Your task to perform on an android device: open wifi settings Image 0: 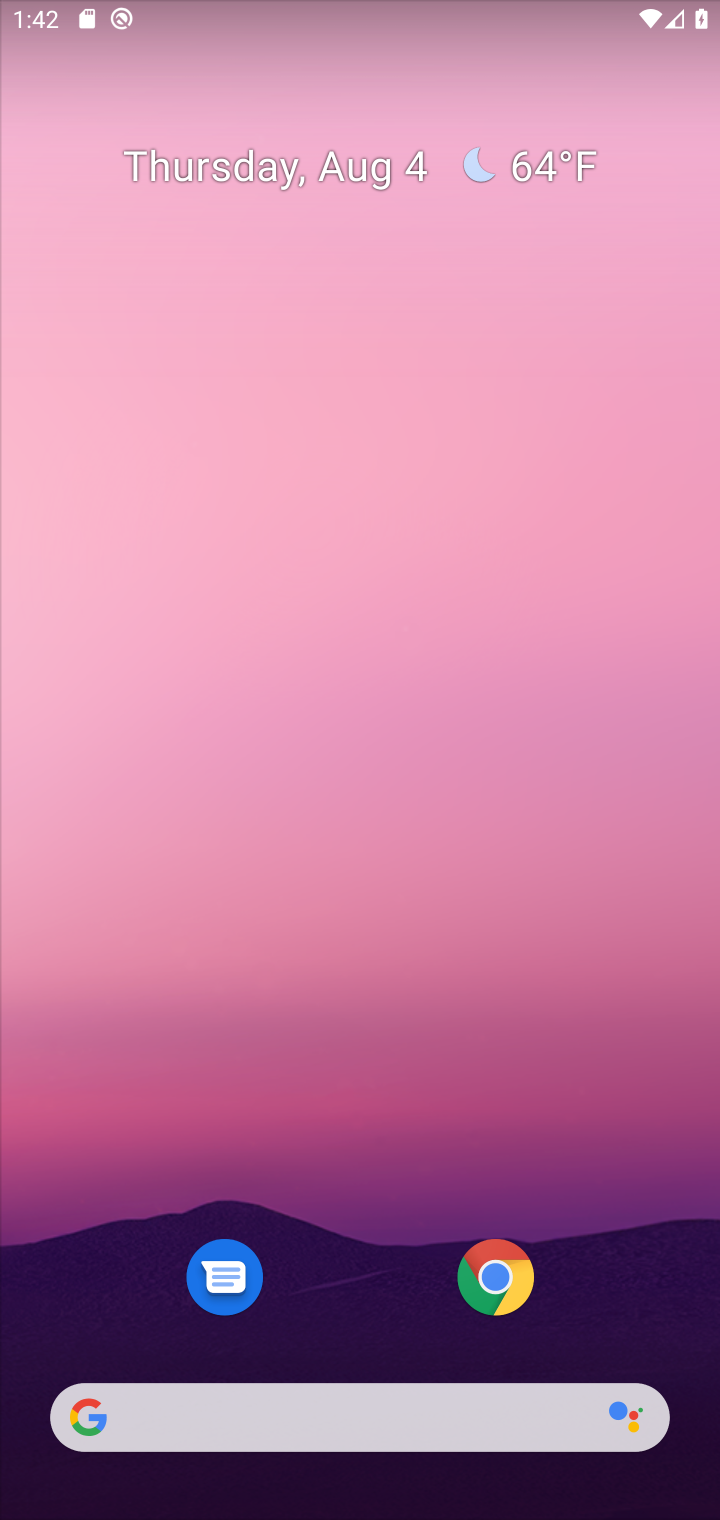
Step 0: drag from (279, 855) to (235, 408)
Your task to perform on an android device: open wifi settings Image 1: 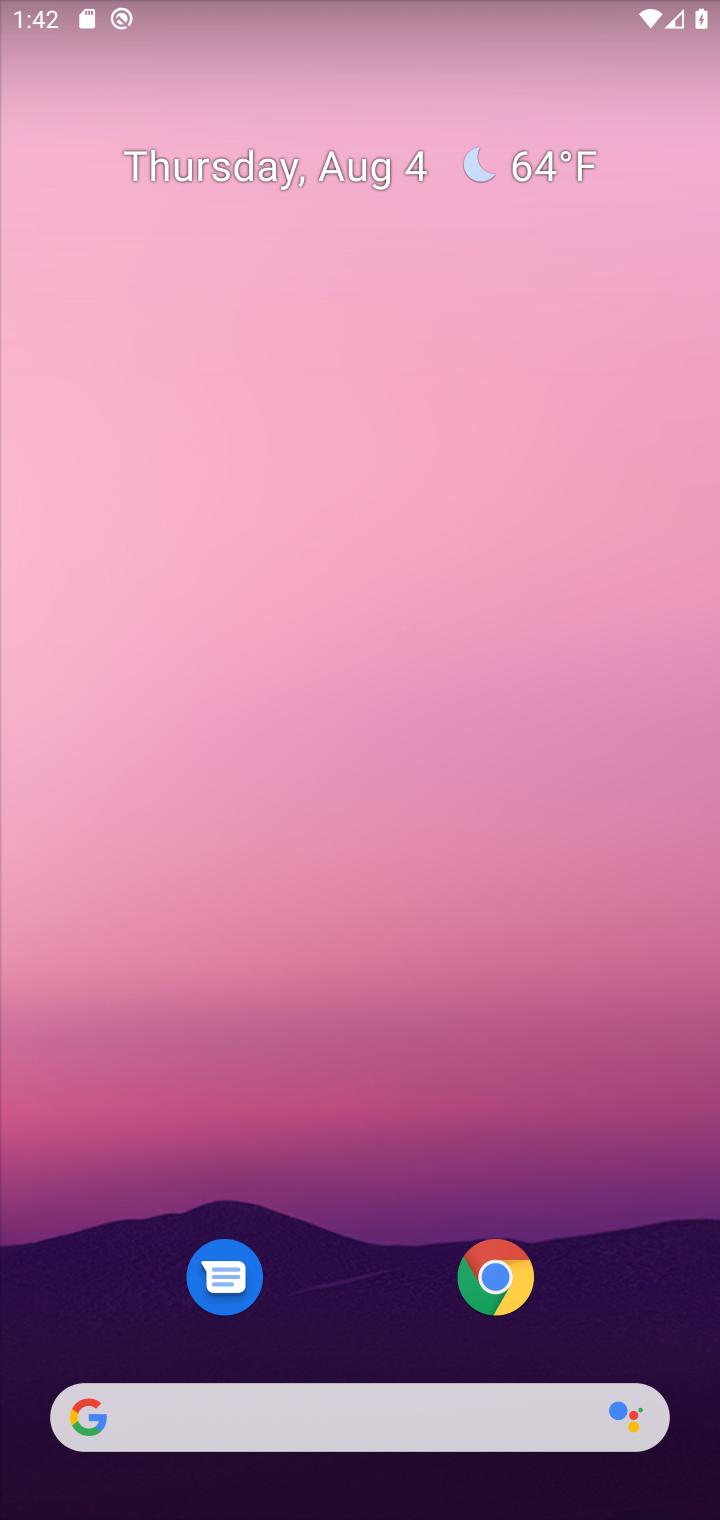
Step 1: drag from (305, 1173) to (376, 321)
Your task to perform on an android device: open wifi settings Image 2: 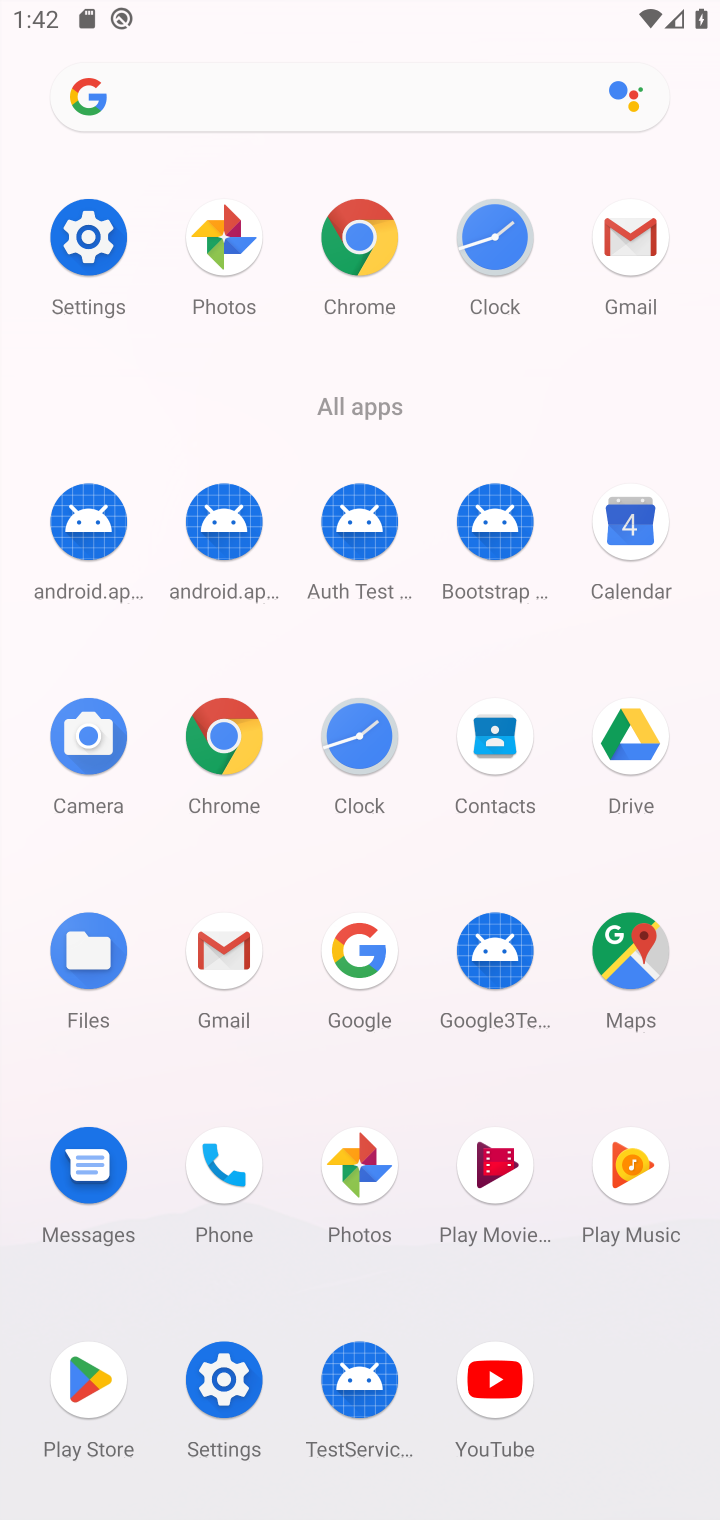
Step 2: click (56, 217)
Your task to perform on an android device: open wifi settings Image 3: 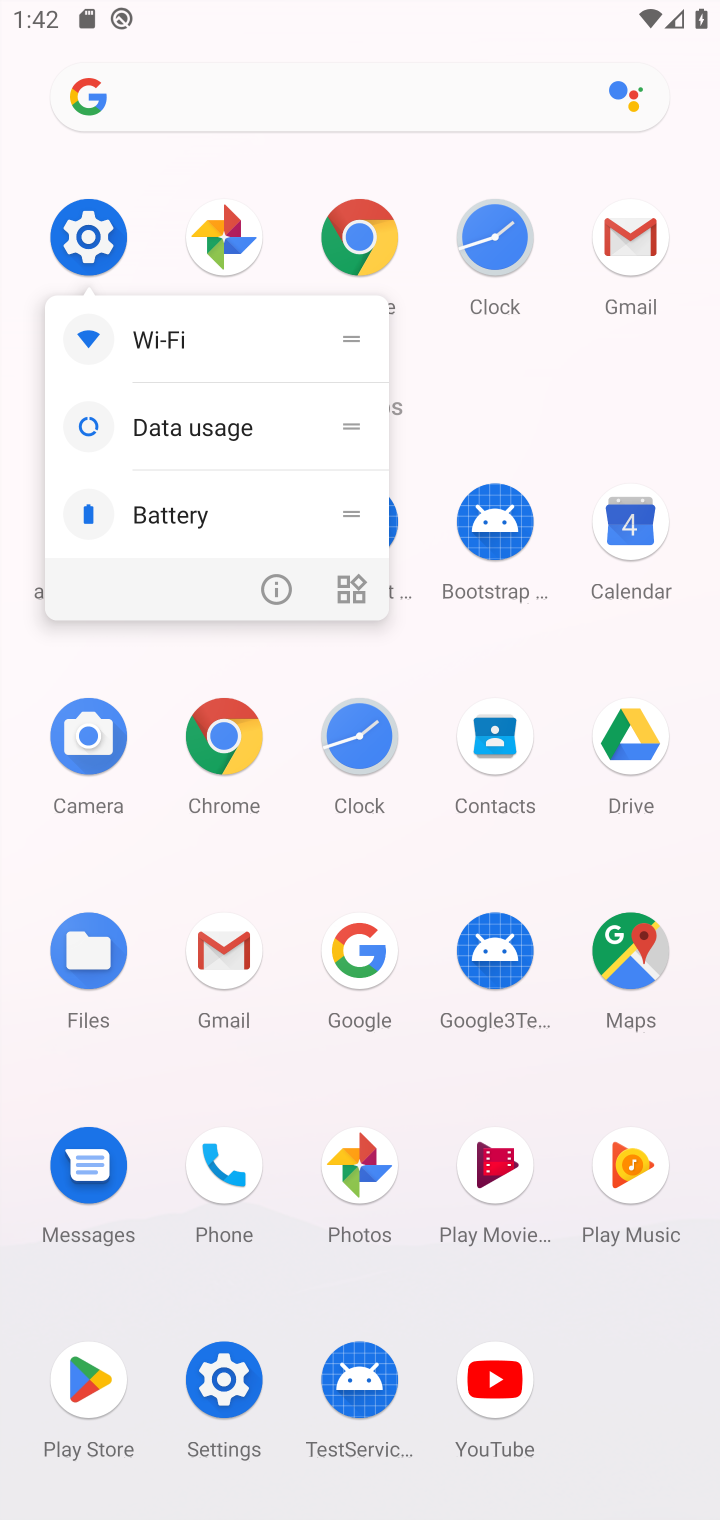
Step 3: click (151, 340)
Your task to perform on an android device: open wifi settings Image 4: 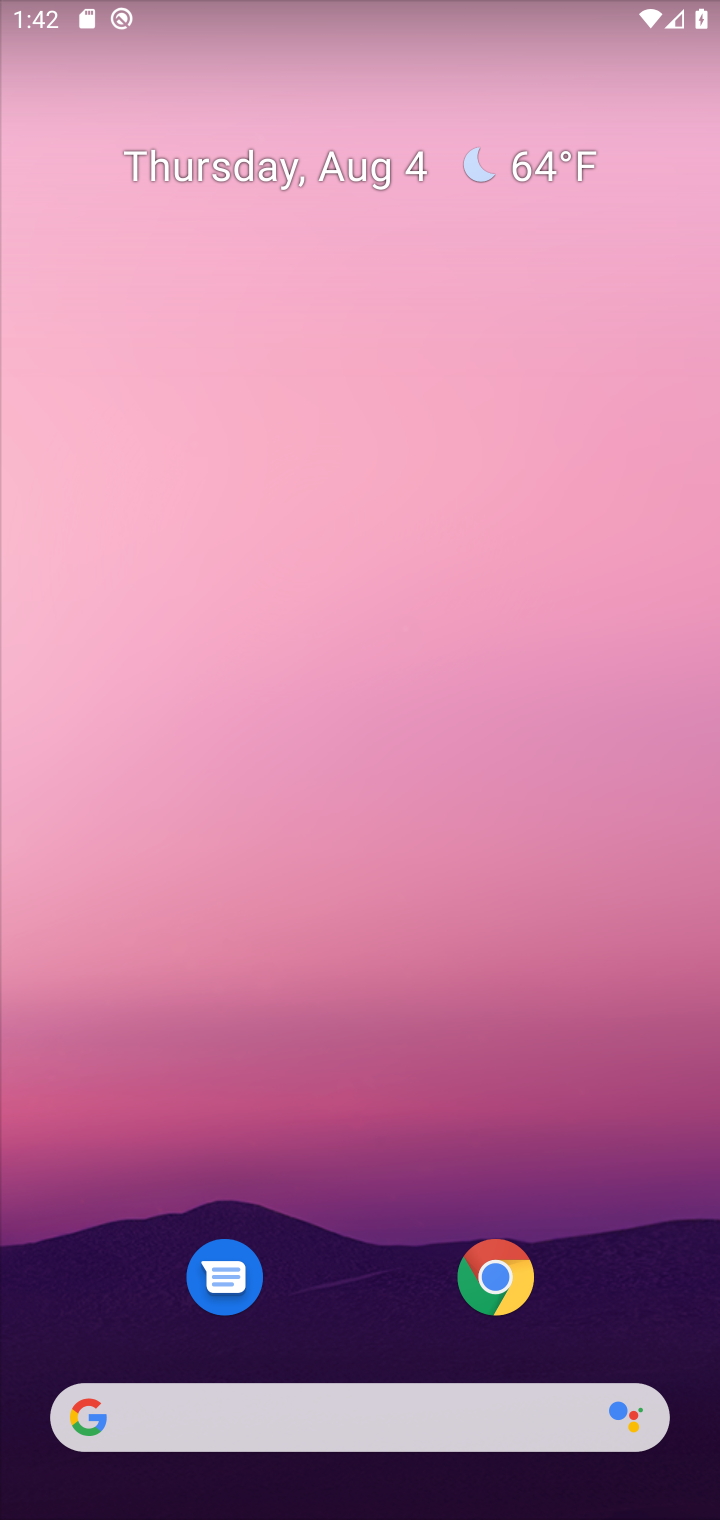
Step 4: drag from (419, 1221) to (531, 432)
Your task to perform on an android device: open wifi settings Image 5: 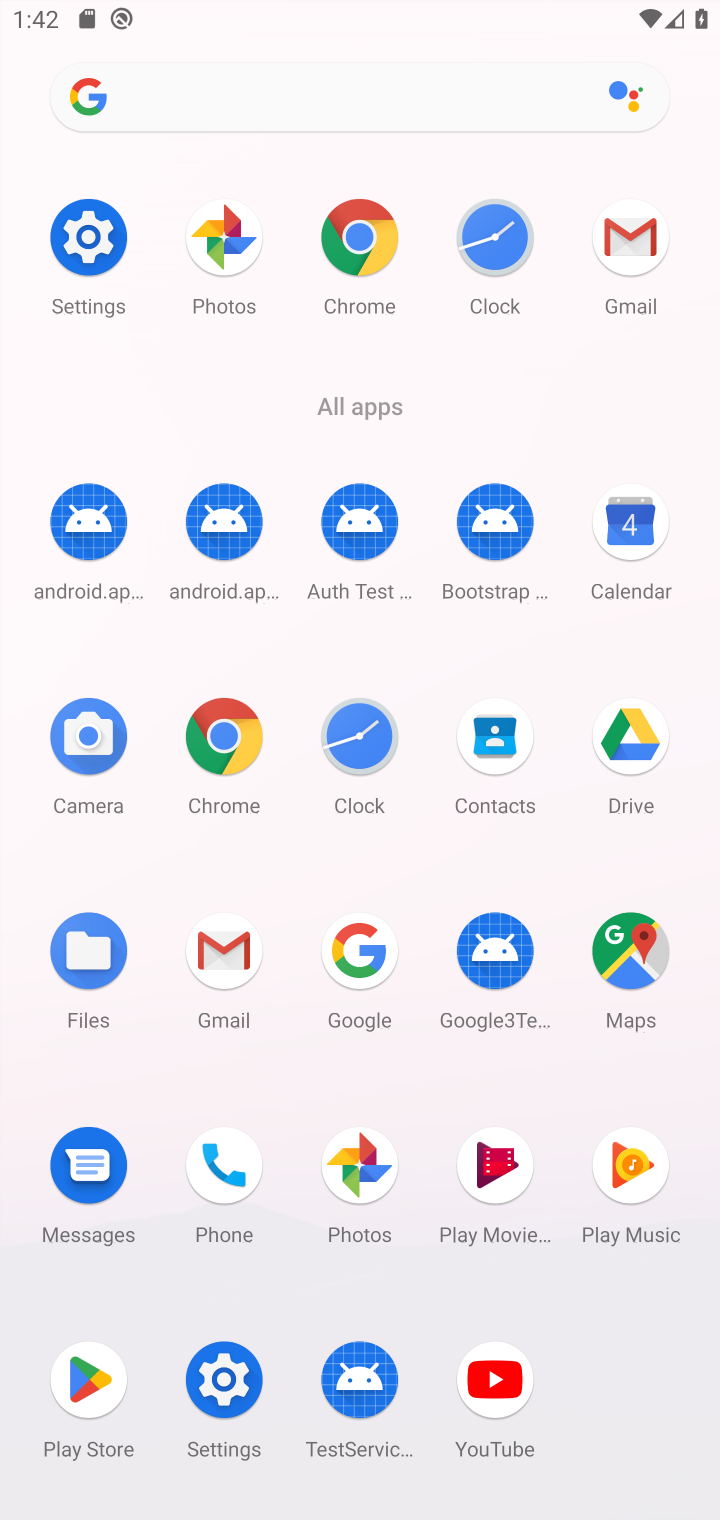
Step 5: click (106, 242)
Your task to perform on an android device: open wifi settings Image 6: 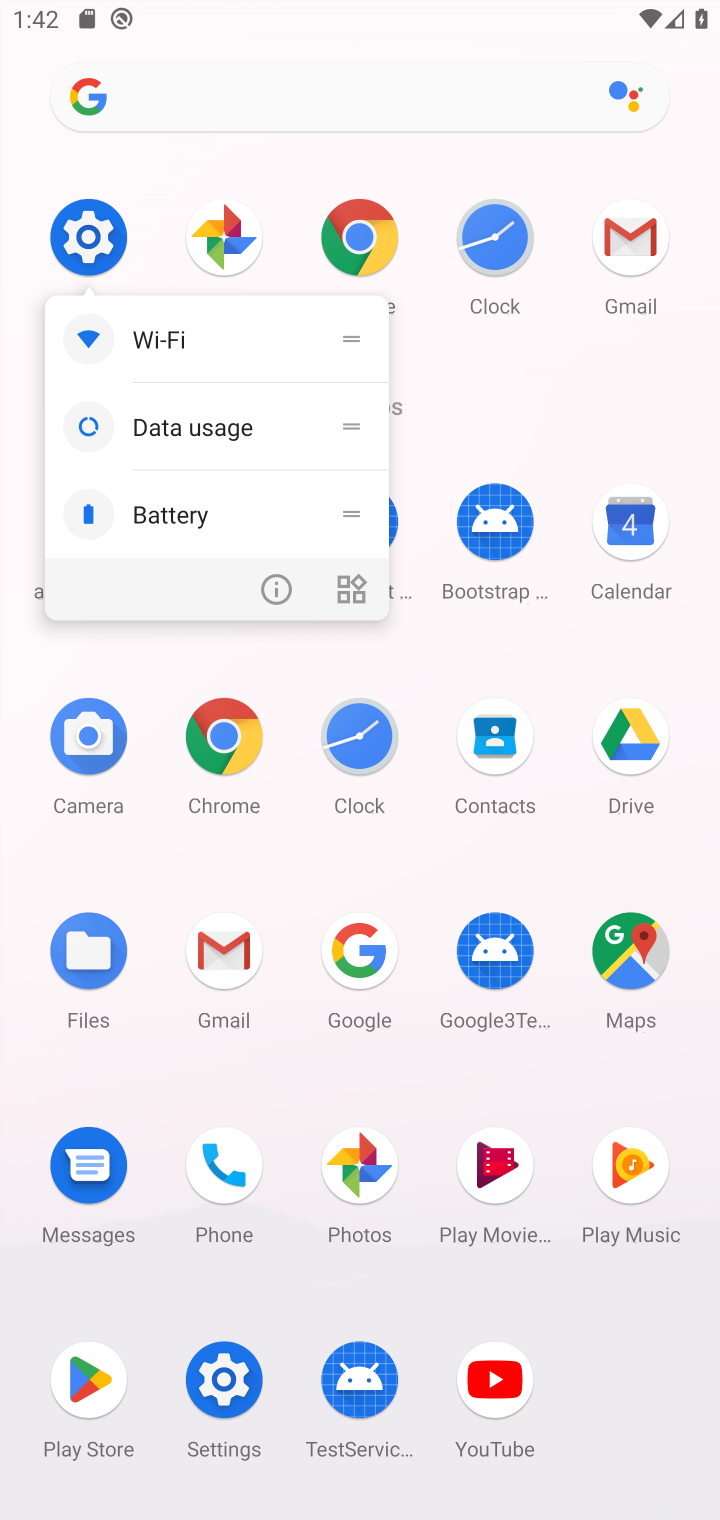
Step 6: click (106, 257)
Your task to perform on an android device: open wifi settings Image 7: 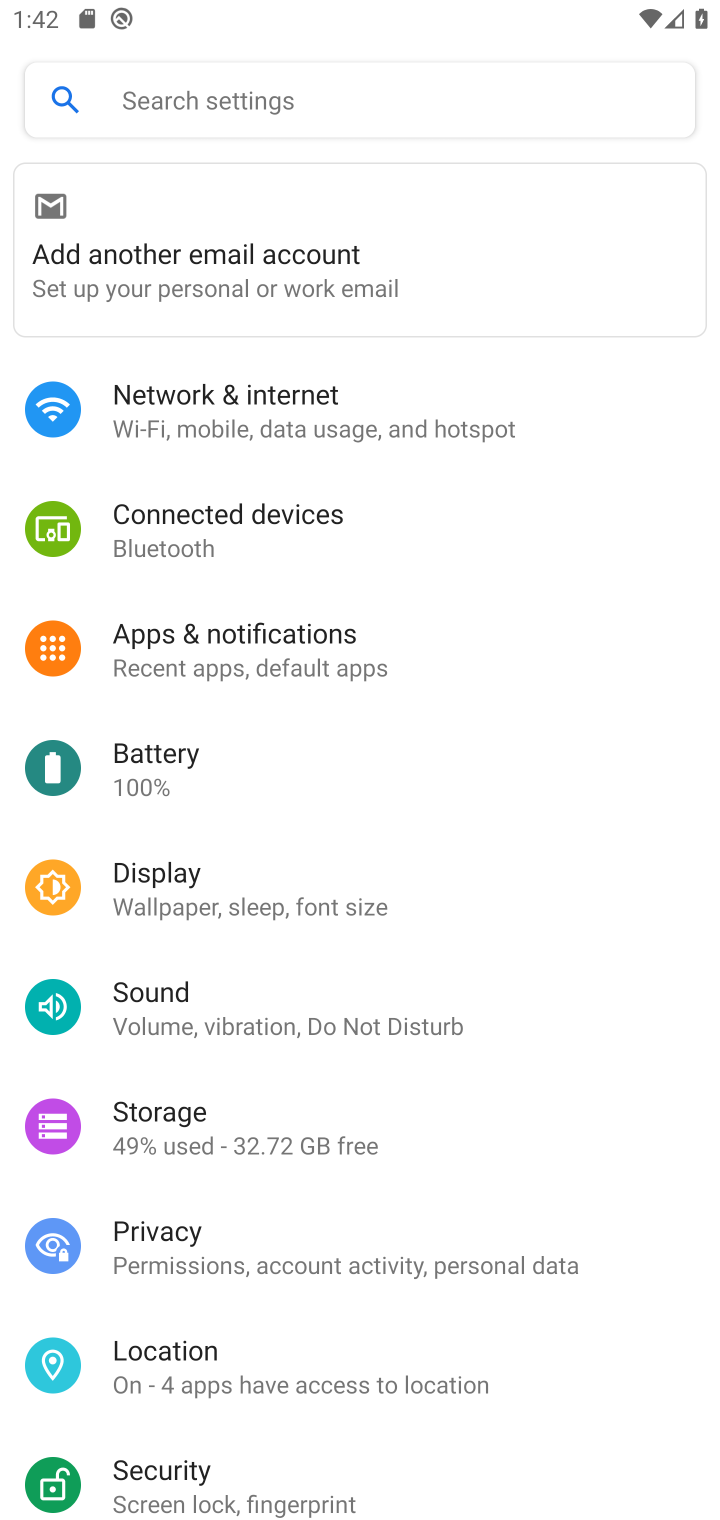
Step 7: click (263, 397)
Your task to perform on an android device: open wifi settings Image 8: 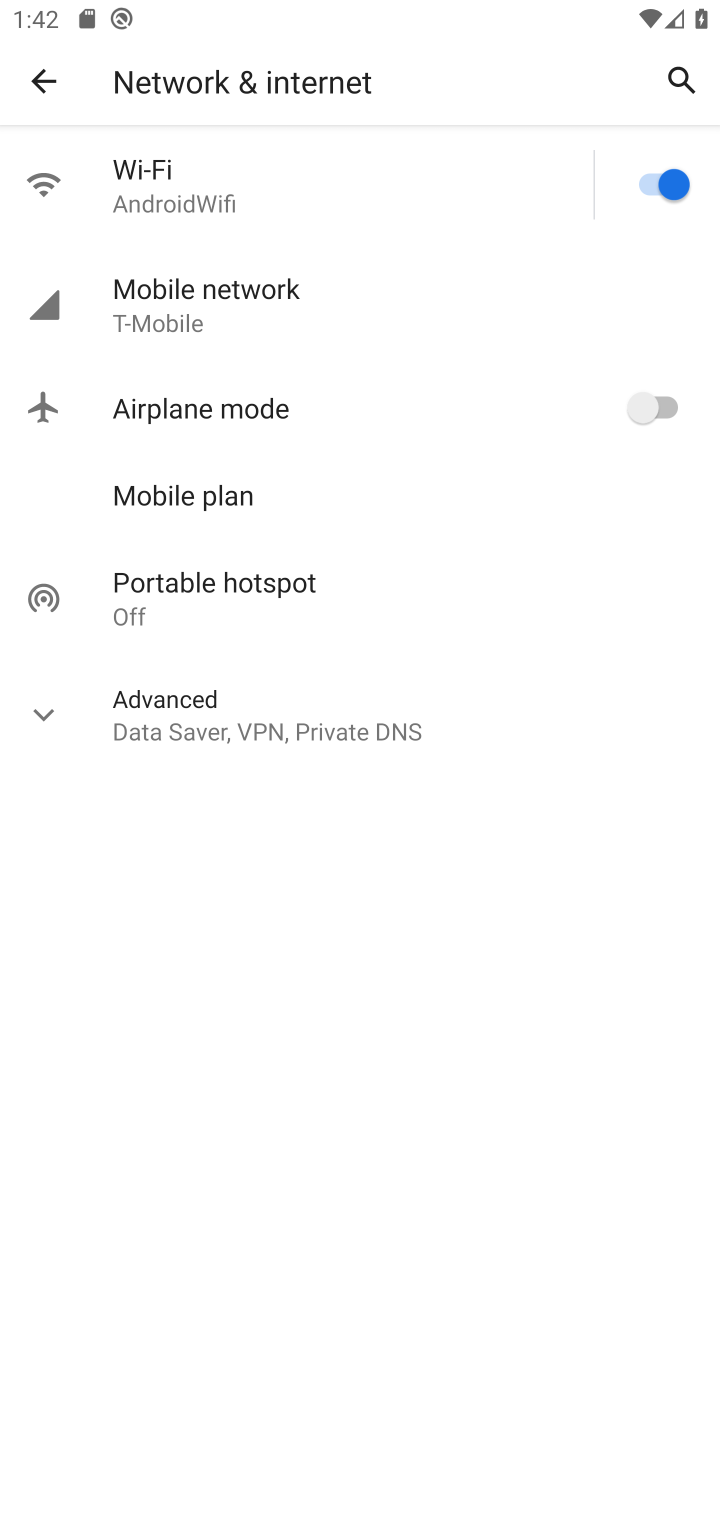
Step 8: click (326, 147)
Your task to perform on an android device: open wifi settings Image 9: 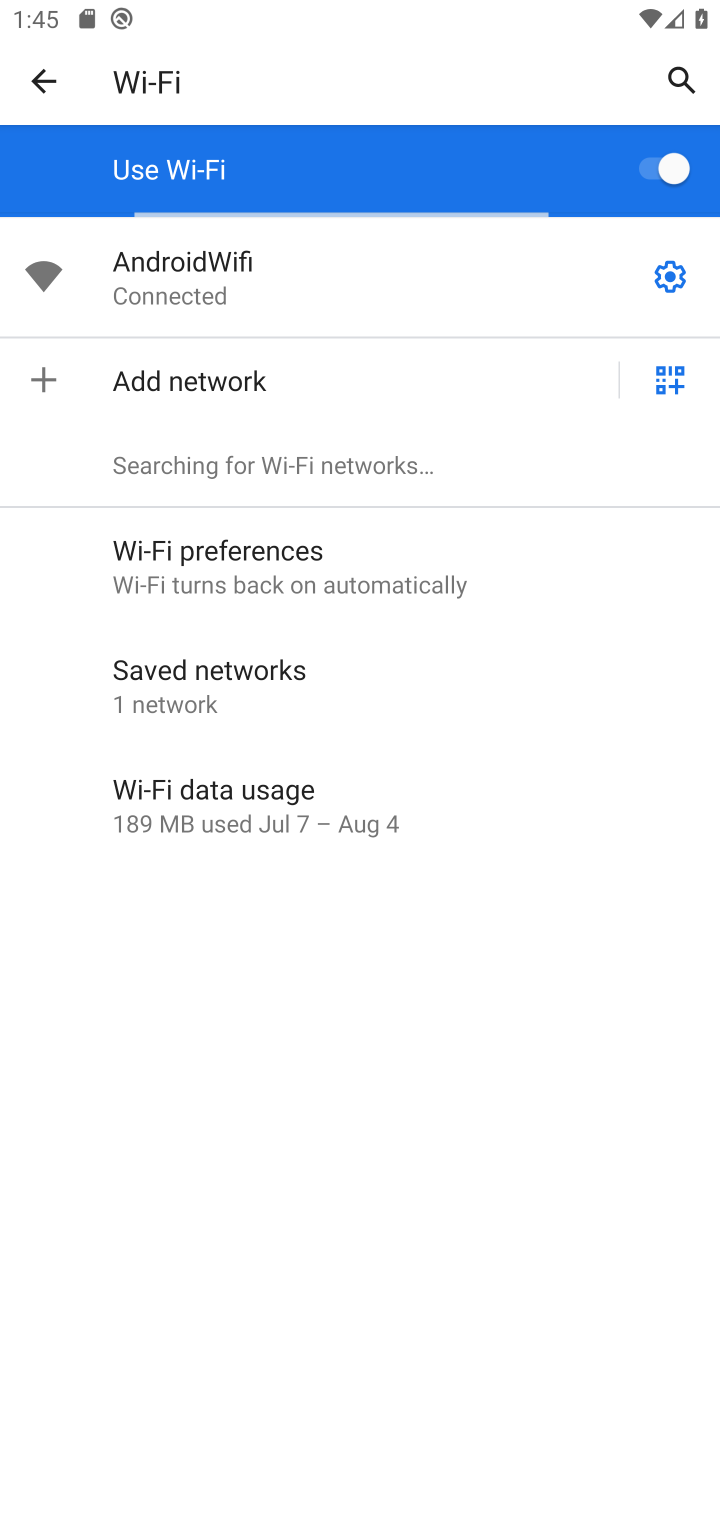
Step 9: task complete